Your task to perform on an android device: Open the calendar app, open the side menu, and click the "Day" option Image 0: 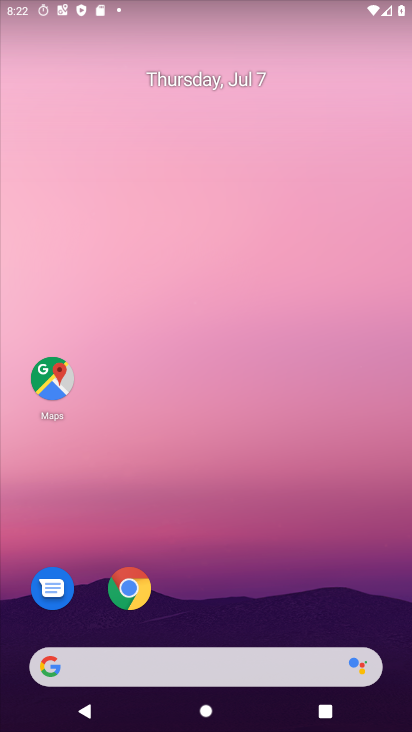
Step 0: drag from (122, 674) to (287, 168)
Your task to perform on an android device: Open the calendar app, open the side menu, and click the "Day" option Image 1: 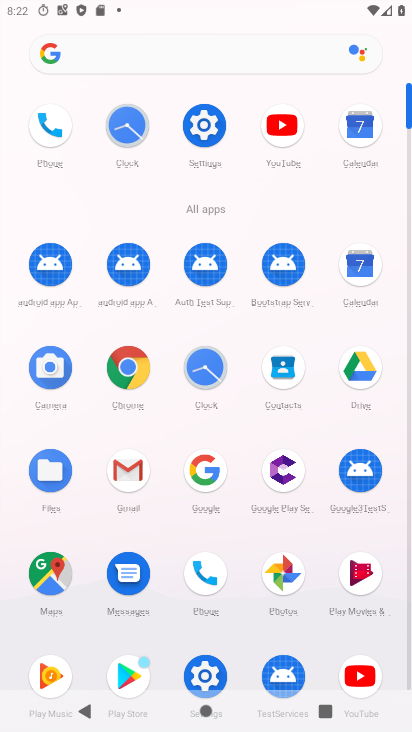
Step 1: click (361, 270)
Your task to perform on an android device: Open the calendar app, open the side menu, and click the "Day" option Image 2: 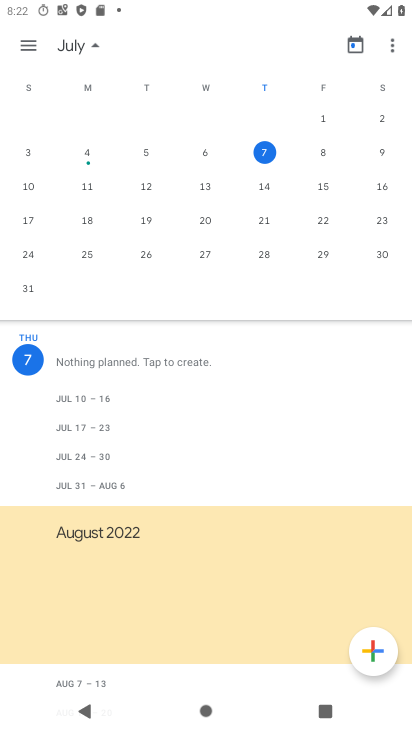
Step 2: click (18, 52)
Your task to perform on an android device: Open the calendar app, open the side menu, and click the "Day" option Image 3: 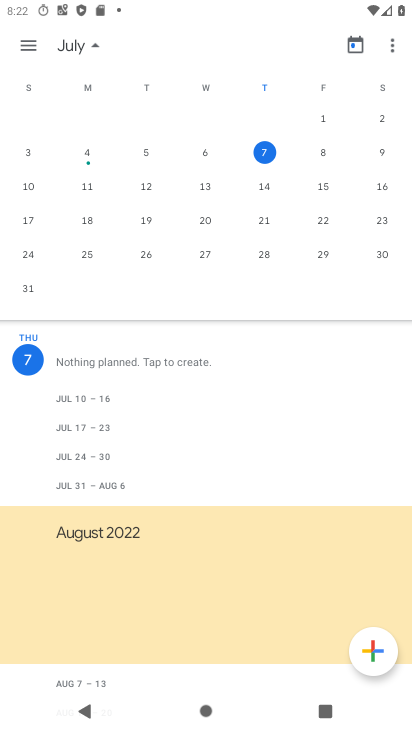
Step 3: click (32, 38)
Your task to perform on an android device: Open the calendar app, open the side menu, and click the "Day" option Image 4: 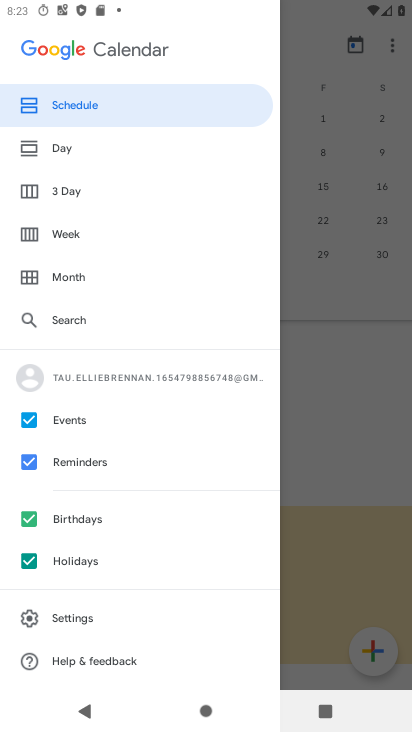
Step 4: click (63, 146)
Your task to perform on an android device: Open the calendar app, open the side menu, and click the "Day" option Image 5: 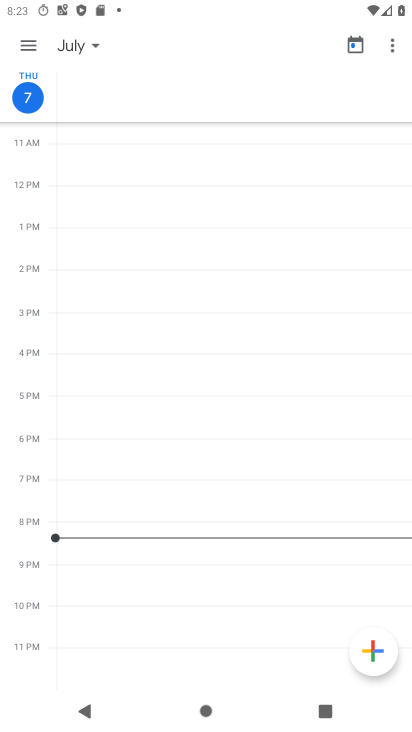
Step 5: task complete